Your task to perform on an android device: Open wifi settings Image 0: 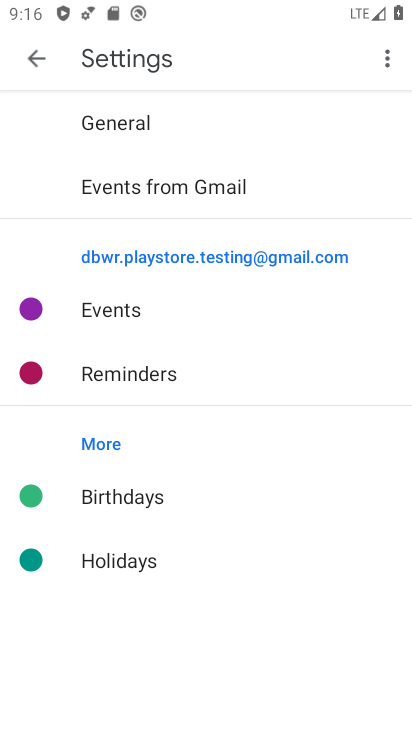
Step 0: press home button
Your task to perform on an android device: Open wifi settings Image 1: 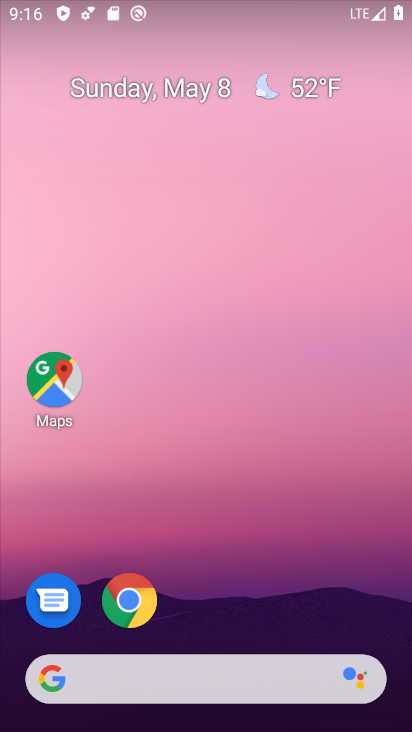
Step 1: drag from (295, 641) to (285, 3)
Your task to perform on an android device: Open wifi settings Image 2: 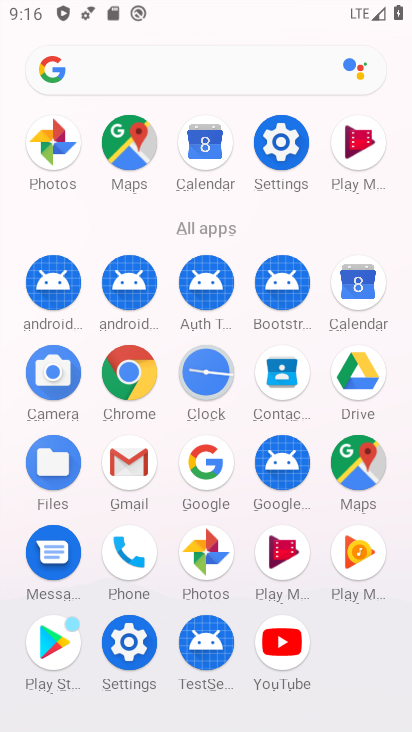
Step 2: click (277, 154)
Your task to perform on an android device: Open wifi settings Image 3: 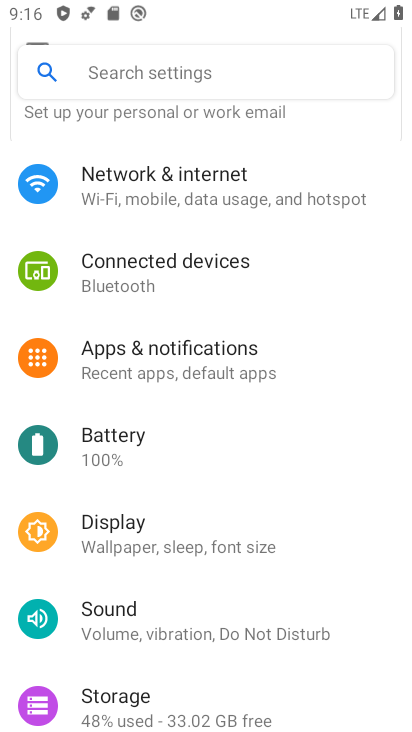
Step 3: drag from (292, 179) to (303, 646)
Your task to perform on an android device: Open wifi settings Image 4: 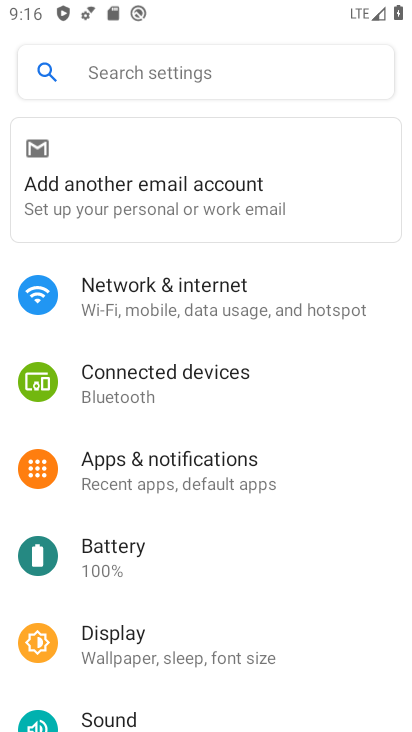
Step 4: click (96, 301)
Your task to perform on an android device: Open wifi settings Image 5: 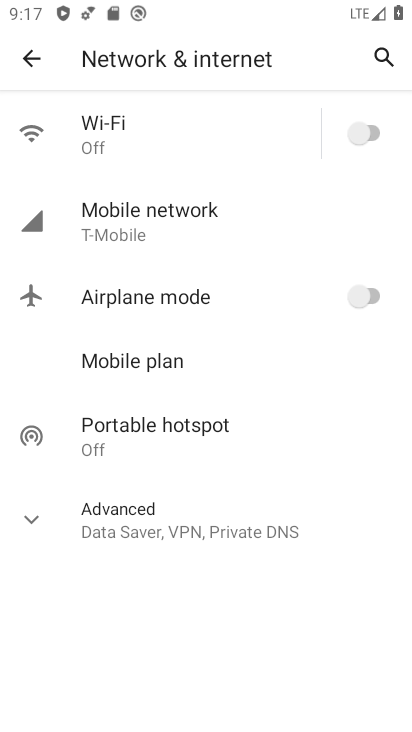
Step 5: click (99, 146)
Your task to perform on an android device: Open wifi settings Image 6: 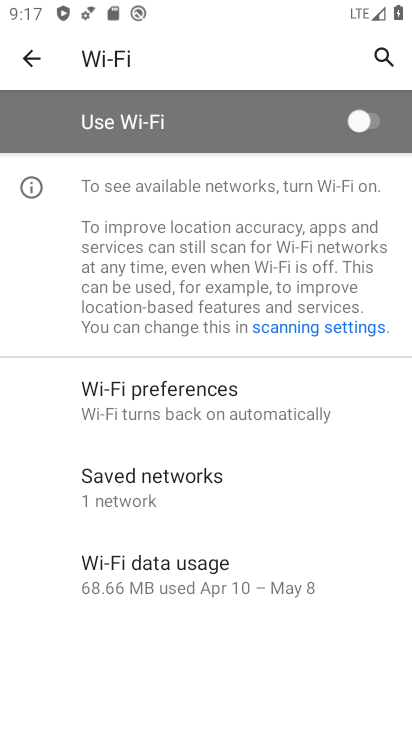
Step 6: task complete